Your task to perform on an android device: Go to calendar. Show me events next week Image 0: 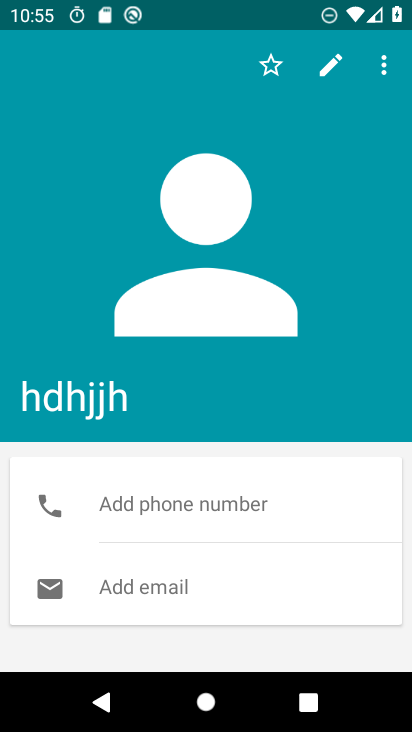
Step 0: press home button
Your task to perform on an android device: Go to calendar. Show me events next week Image 1: 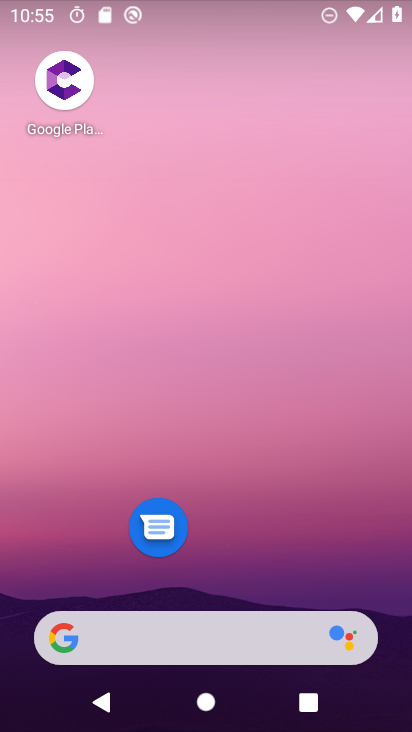
Step 1: drag from (258, 548) to (277, 71)
Your task to perform on an android device: Go to calendar. Show me events next week Image 2: 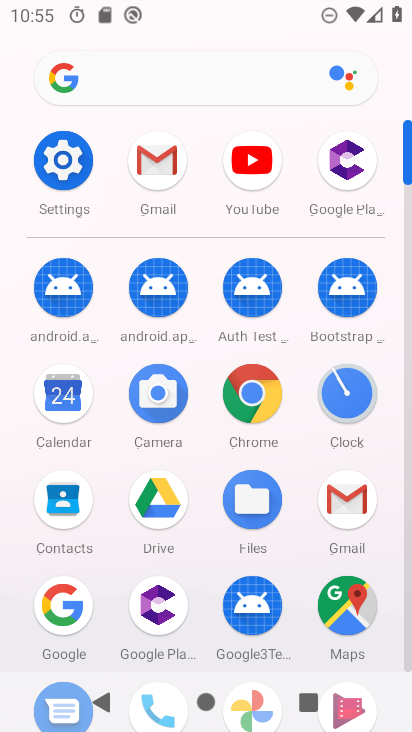
Step 2: click (69, 396)
Your task to perform on an android device: Go to calendar. Show me events next week Image 3: 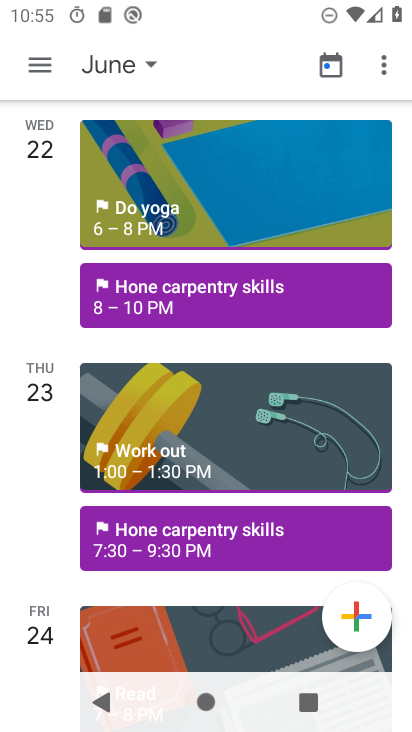
Step 3: drag from (9, 355) to (232, 1)
Your task to perform on an android device: Go to calendar. Show me events next week Image 4: 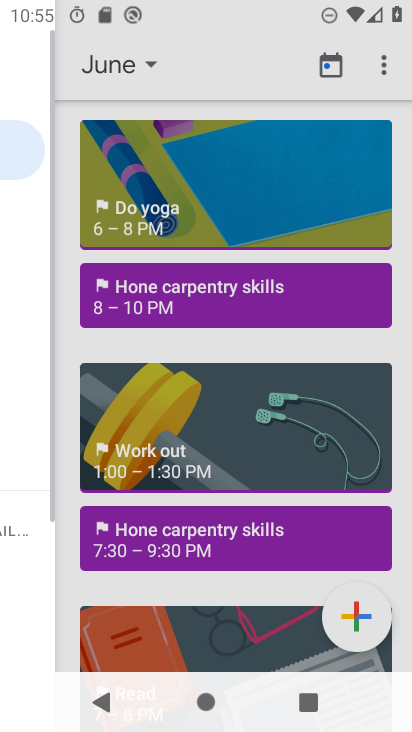
Step 4: click (149, 64)
Your task to perform on an android device: Go to calendar. Show me events next week Image 5: 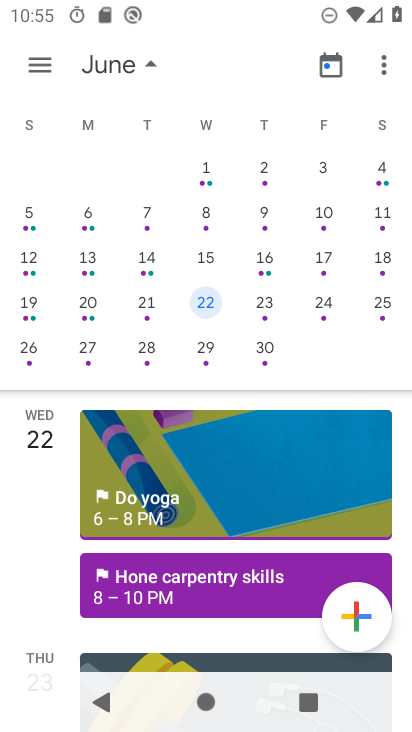
Step 5: drag from (73, 350) to (393, 308)
Your task to perform on an android device: Go to calendar. Show me events next week Image 6: 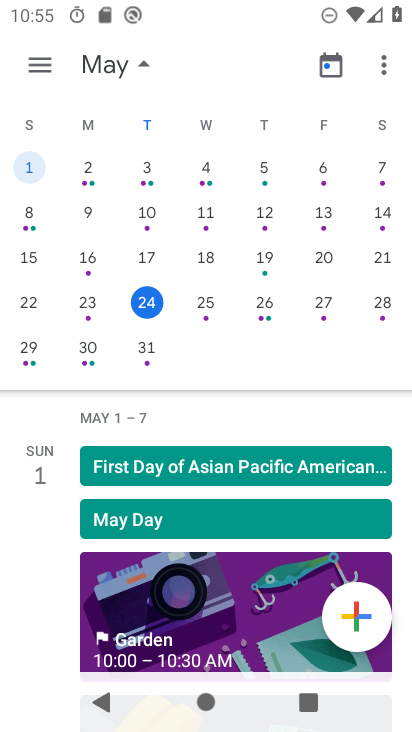
Step 6: click (328, 305)
Your task to perform on an android device: Go to calendar. Show me events next week Image 7: 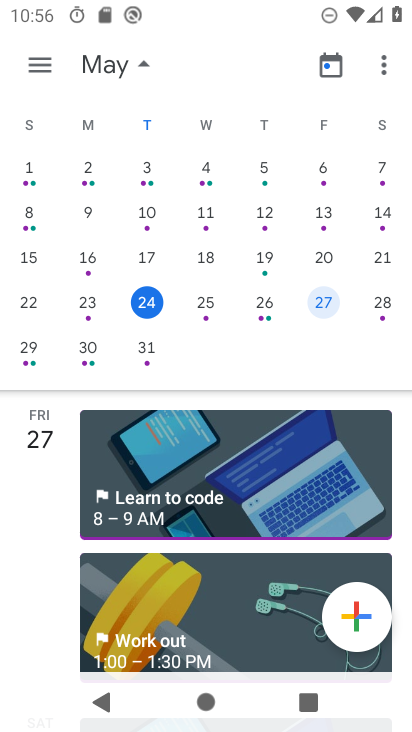
Step 7: task complete